Your task to perform on an android device: install app "NewsBreak: Local News & Alerts" Image 0: 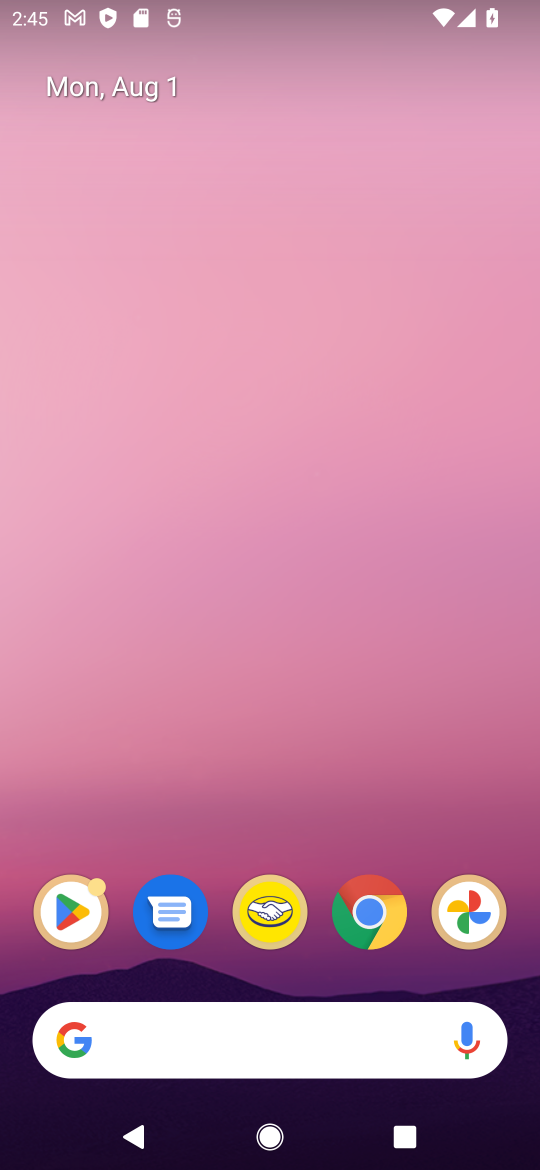
Step 0: click (81, 907)
Your task to perform on an android device: install app "NewsBreak: Local News & Alerts" Image 1: 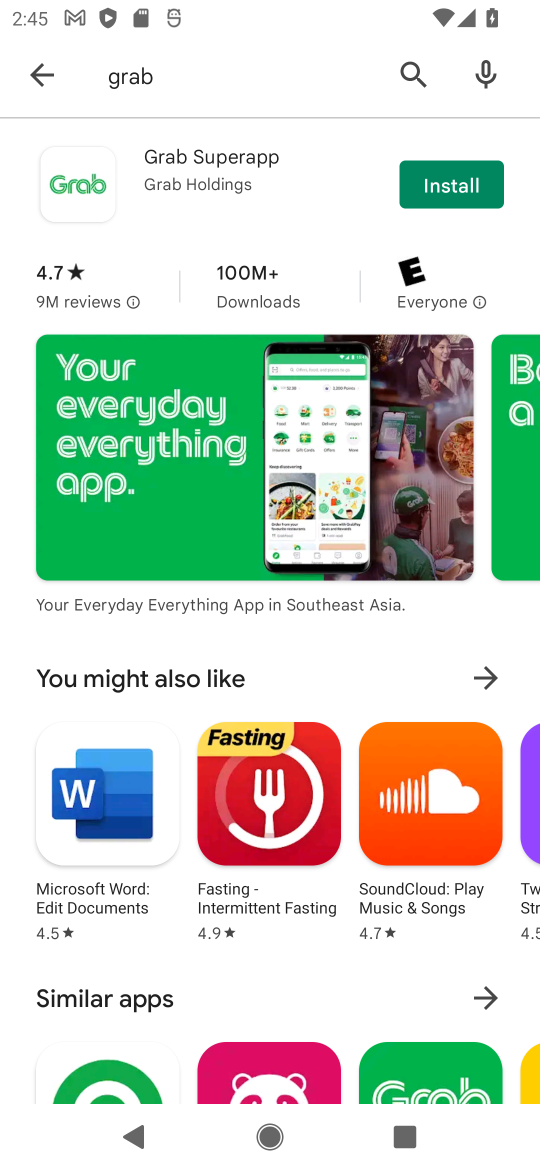
Step 1: click (408, 79)
Your task to perform on an android device: install app "NewsBreak: Local News & Alerts" Image 2: 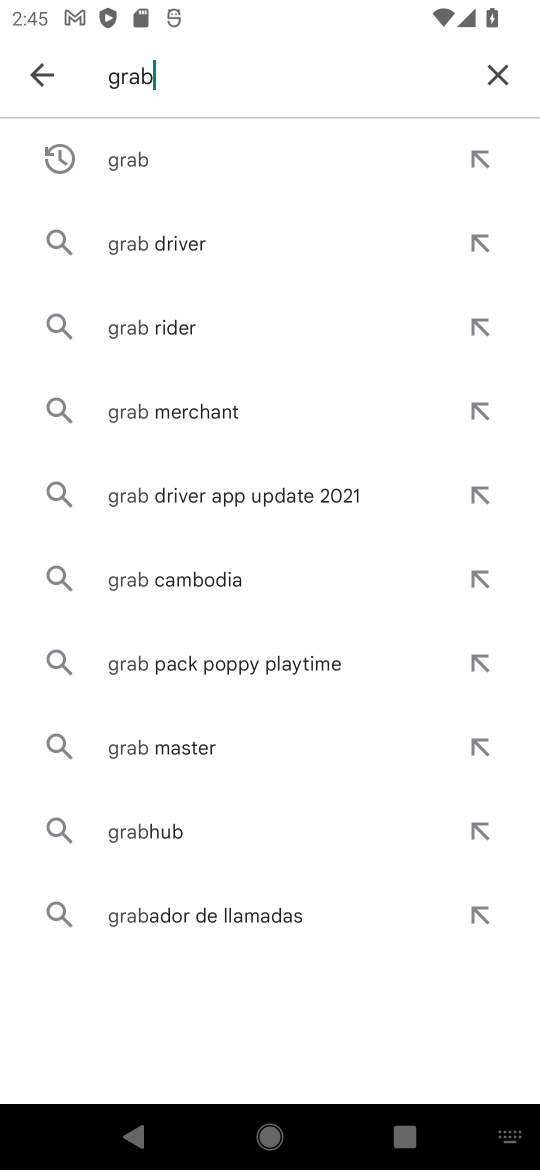
Step 2: click (509, 76)
Your task to perform on an android device: install app "NewsBreak: Local News & Alerts" Image 3: 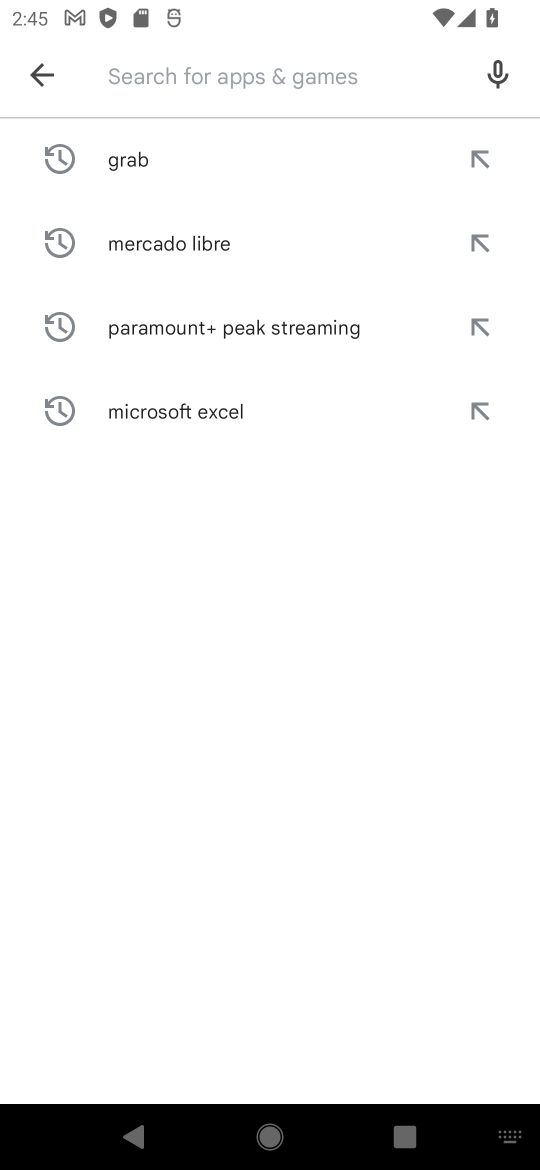
Step 3: click (211, 73)
Your task to perform on an android device: install app "NewsBreak: Local News & Alerts" Image 4: 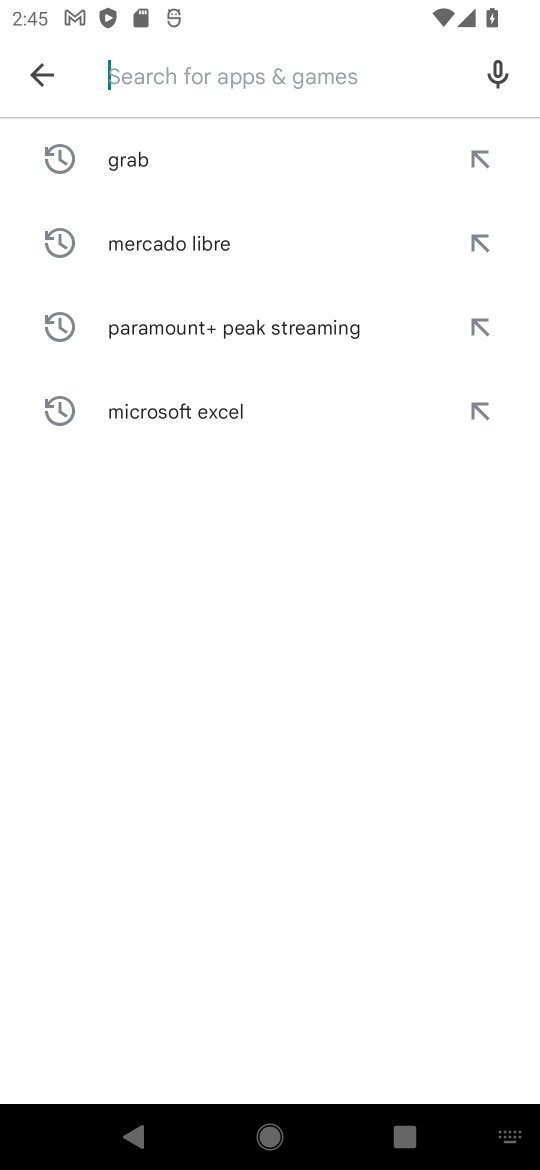
Step 4: type "NewsBreak: Local News & Alerts"
Your task to perform on an android device: install app "NewsBreak: Local News & Alerts" Image 5: 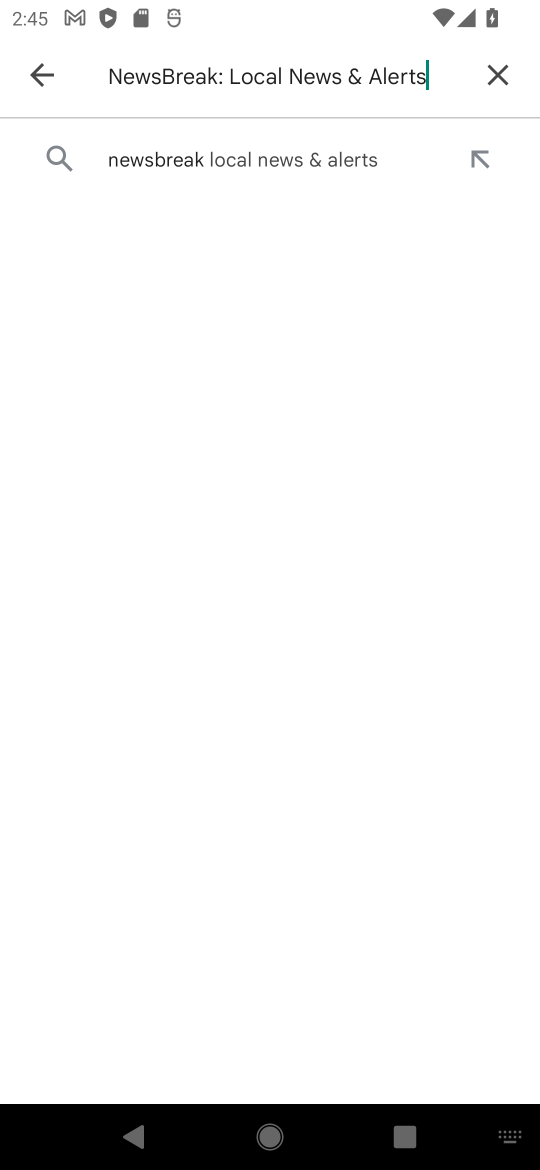
Step 5: click (213, 158)
Your task to perform on an android device: install app "NewsBreak: Local News & Alerts" Image 6: 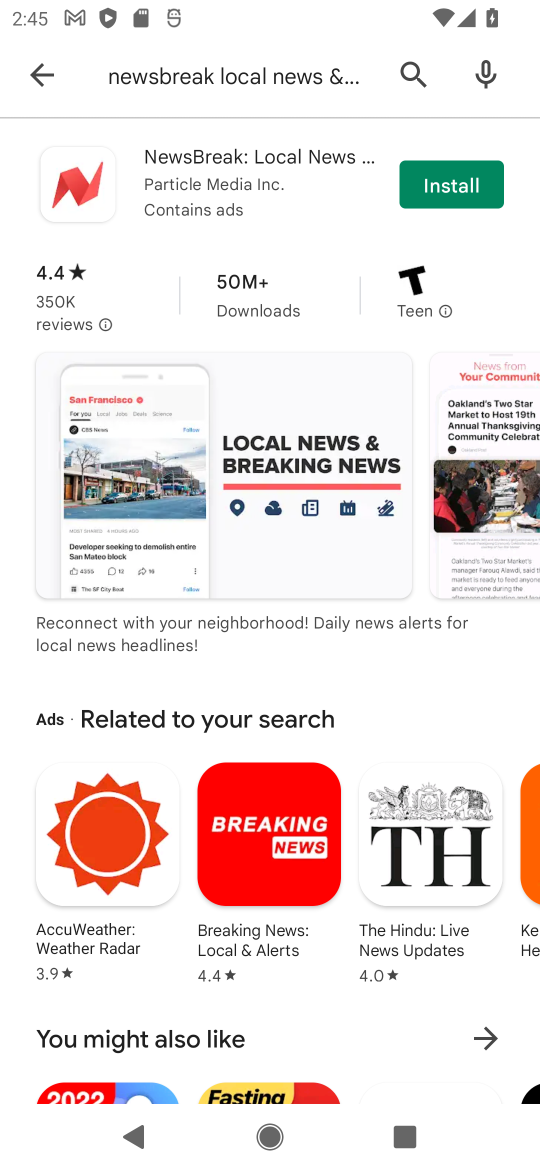
Step 6: click (478, 191)
Your task to perform on an android device: install app "NewsBreak: Local News & Alerts" Image 7: 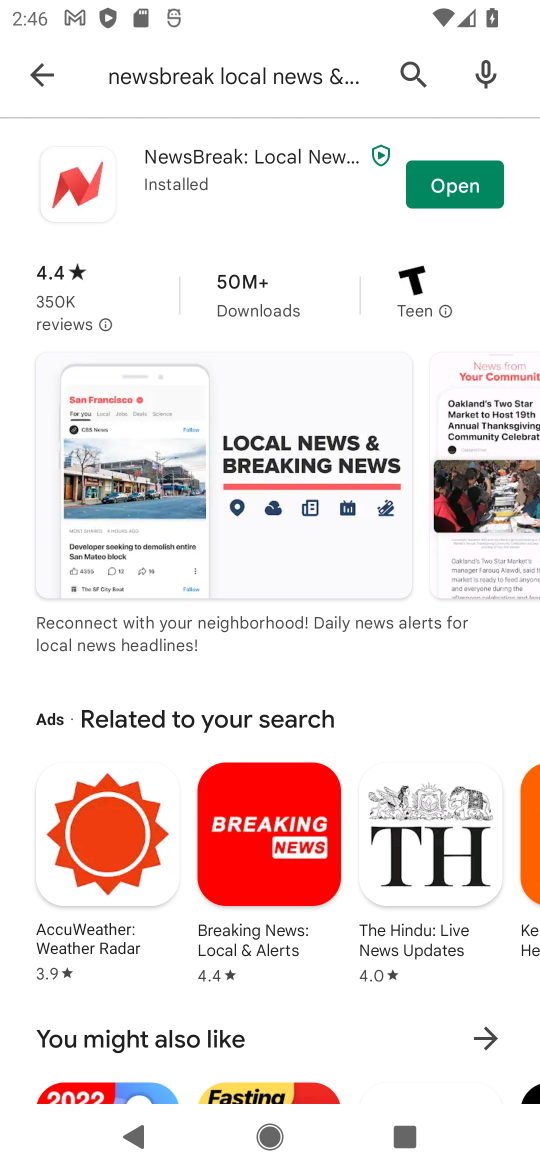
Step 7: task complete